Your task to perform on an android device: empty trash in the gmail app Image 0: 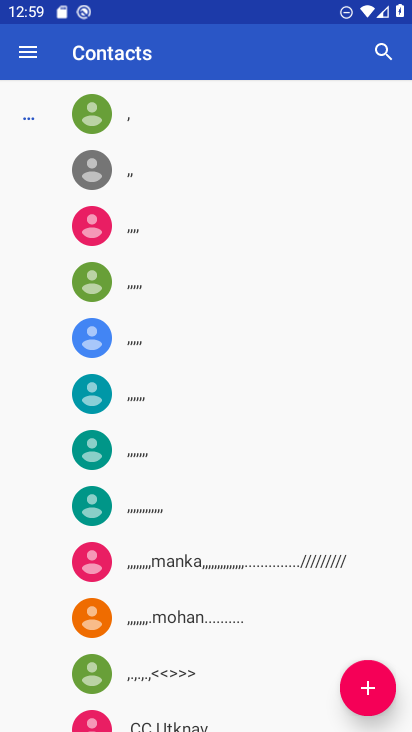
Step 0: press home button
Your task to perform on an android device: empty trash in the gmail app Image 1: 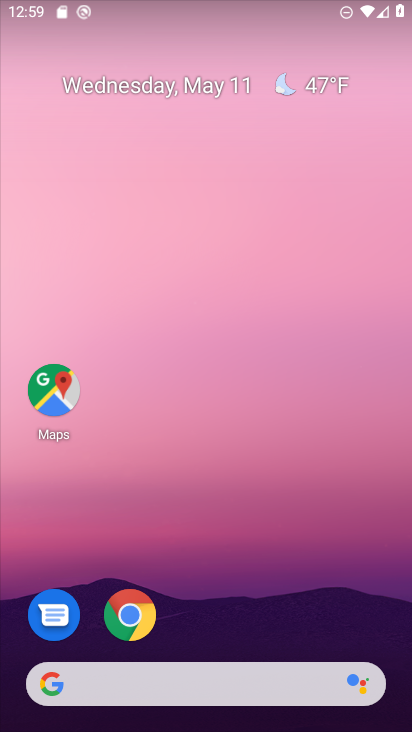
Step 1: drag from (252, 519) to (231, 70)
Your task to perform on an android device: empty trash in the gmail app Image 2: 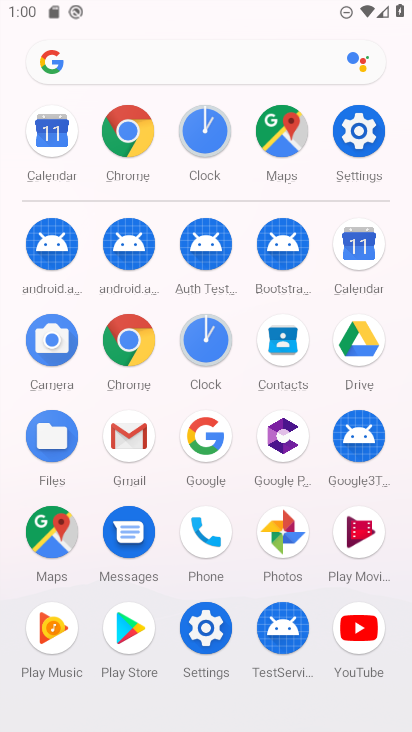
Step 2: click (134, 432)
Your task to perform on an android device: empty trash in the gmail app Image 3: 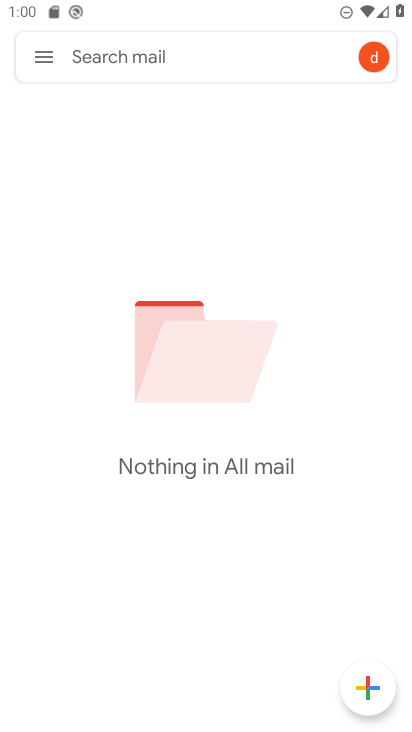
Step 3: click (41, 58)
Your task to perform on an android device: empty trash in the gmail app Image 4: 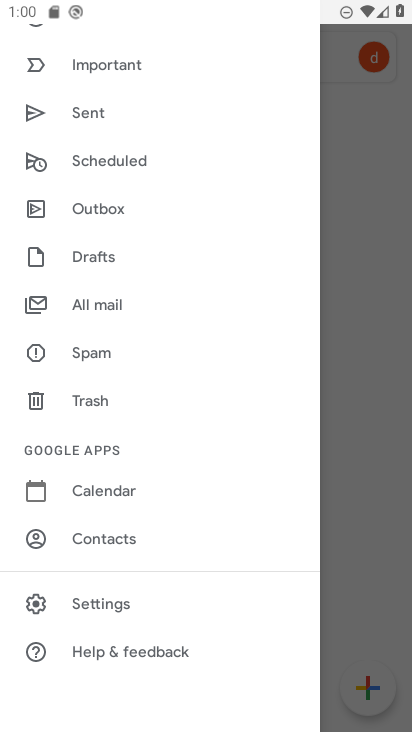
Step 4: click (84, 405)
Your task to perform on an android device: empty trash in the gmail app Image 5: 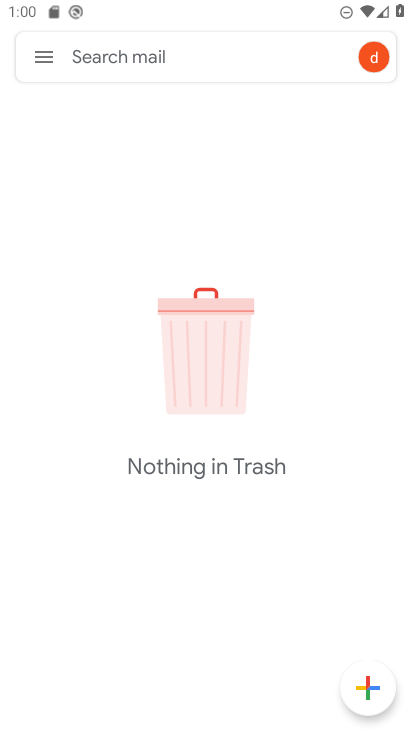
Step 5: task complete